Your task to perform on an android device: add a label to a message in the gmail app Image 0: 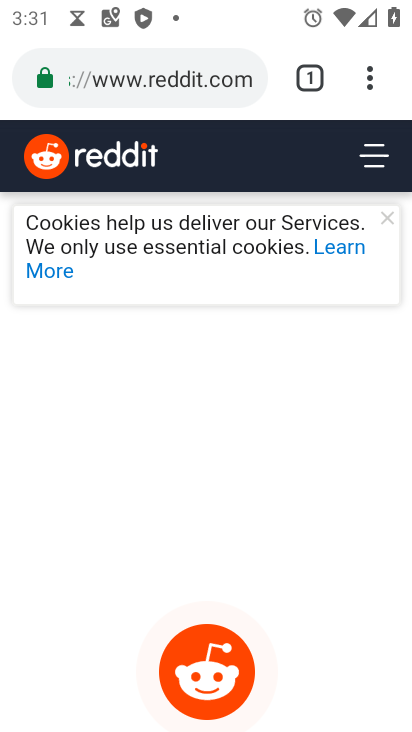
Step 0: press home button
Your task to perform on an android device: add a label to a message in the gmail app Image 1: 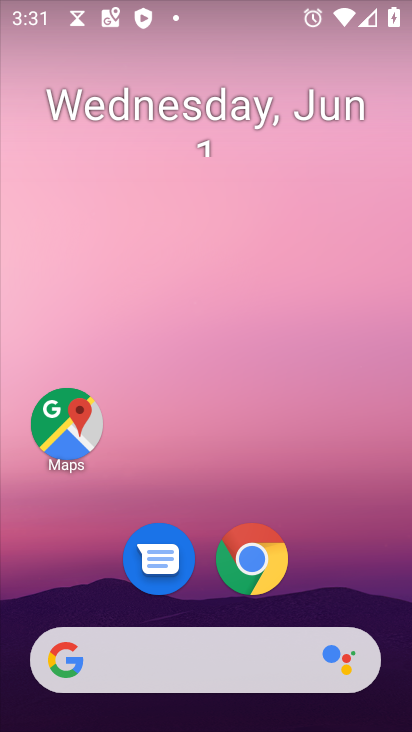
Step 1: drag from (329, 588) to (328, 19)
Your task to perform on an android device: add a label to a message in the gmail app Image 2: 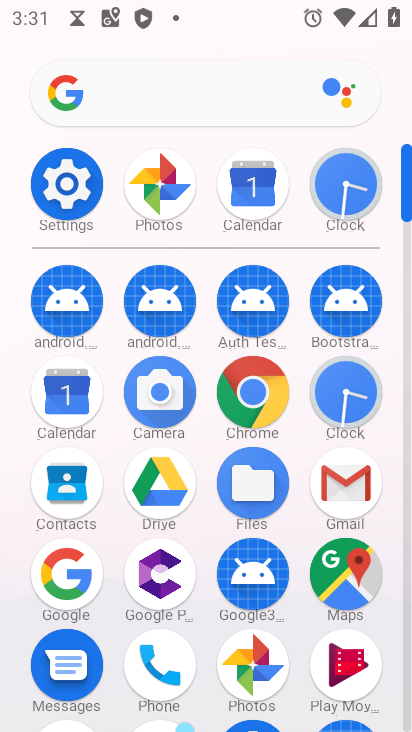
Step 2: click (347, 482)
Your task to perform on an android device: add a label to a message in the gmail app Image 3: 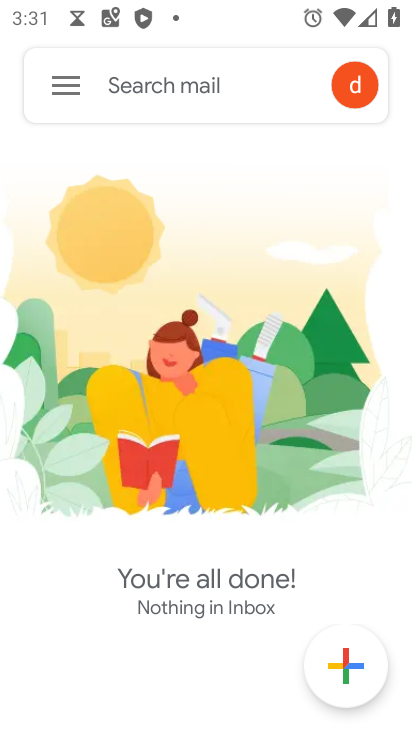
Step 3: click (50, 81)
Your task to perform on an android device: add a label to a message in the gmail app Image 4: 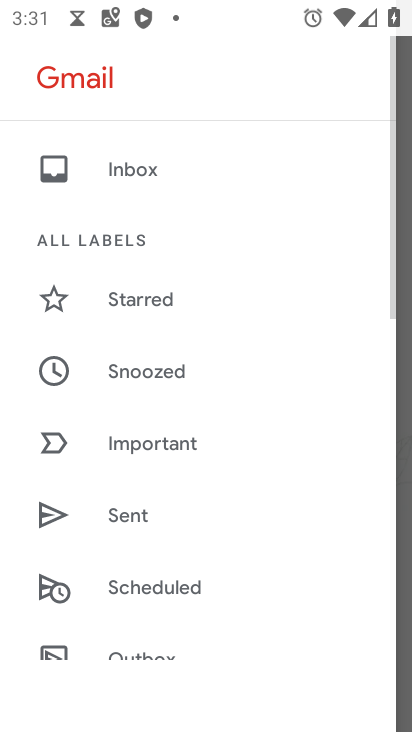
Step 4: drag from (126, 597) to (121, 187)
Your task to perform on an android device: add a label to a message in the gmail app Image 5: 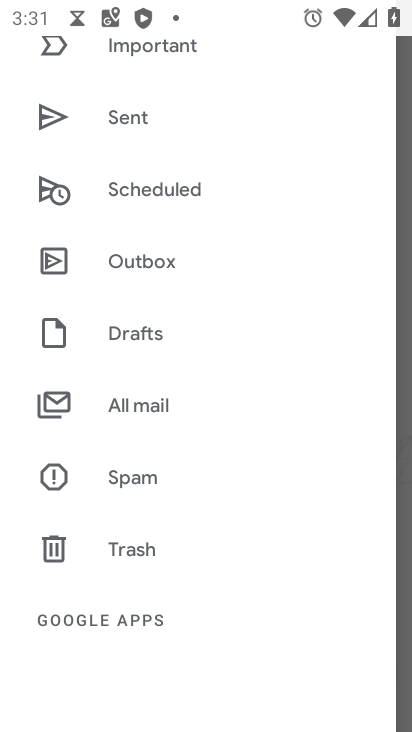
Step 5: click (152, 414)
Your task to perform on an android device: add a label to a message in the gmail app Image 6: 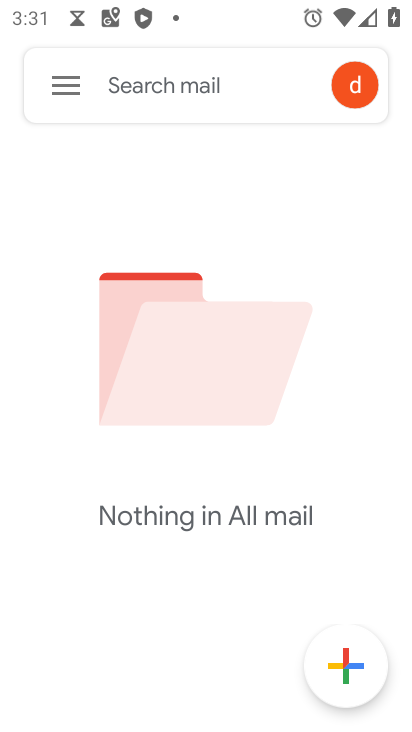
Step 6: task complete